Your task to perform on an android device: What's the weather today? Image 0: 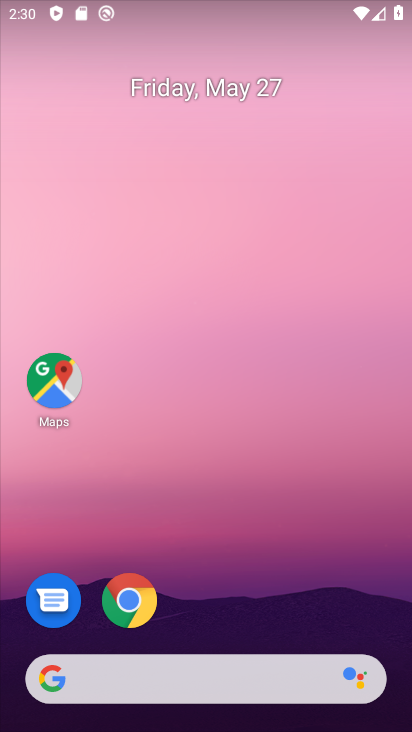
Step 0: drag from (213, 721) to (215, 248)
Your task to perform on an android device: What's the weather today? Image 1: 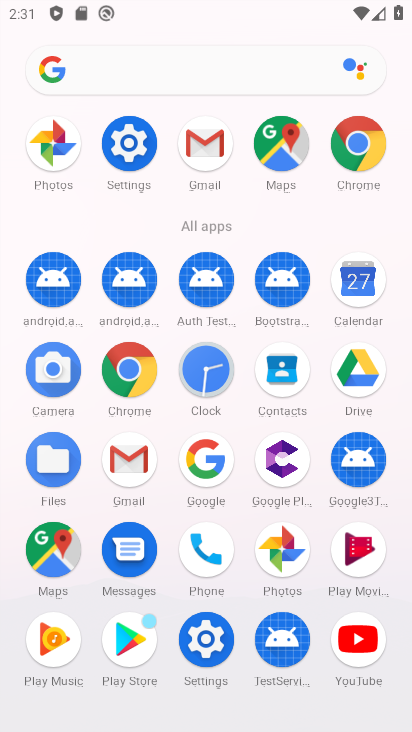
Step 1: click (207, 457)
Your task to perform on an android device: What's the weather today? Image 2: 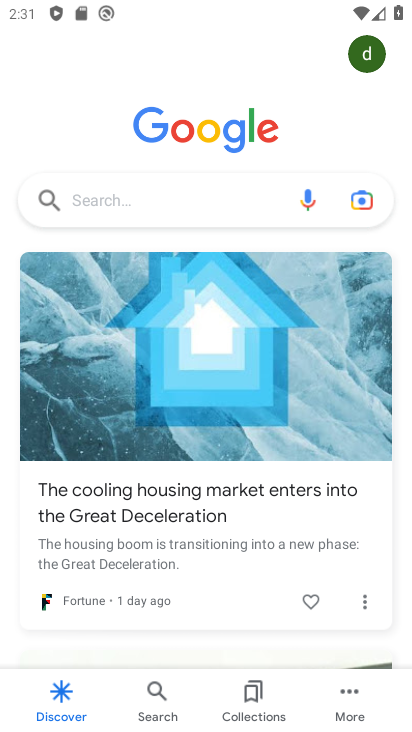
Step 2: click (189, 202)
Your task to perform on an android device: What's the weather today? Image 3: 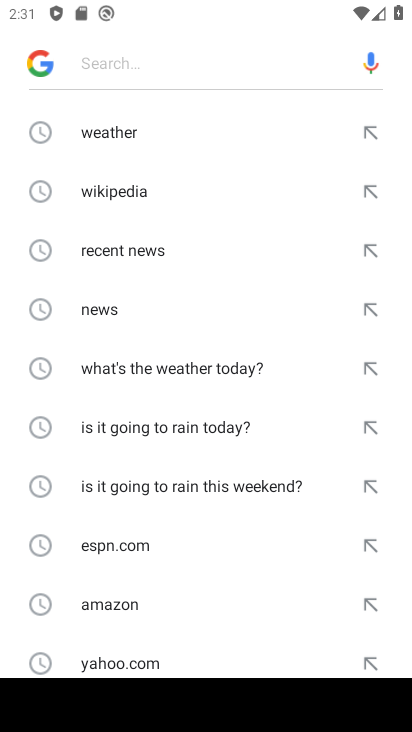
Step 3: click (115, 131)
Your task to perform on an android device: What's the weather today? Image 4: 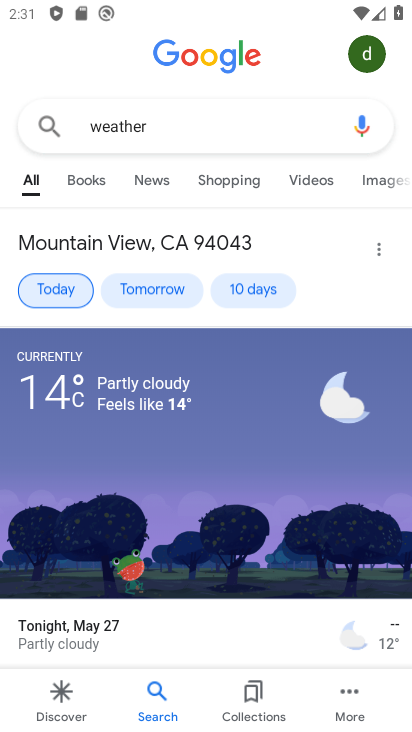
Step 4: click (60, 282)
Your task to perform on an android device: What's the weather today? Image 5: 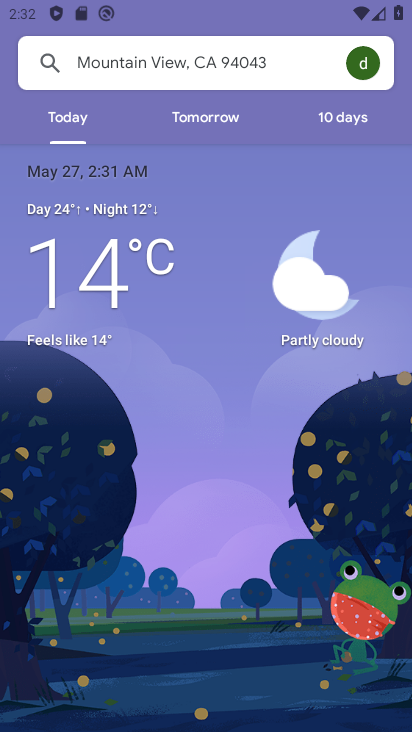
Step 5: task complete